Your task to perform on an android device: find snoozed emails in the gmail app Image 0: 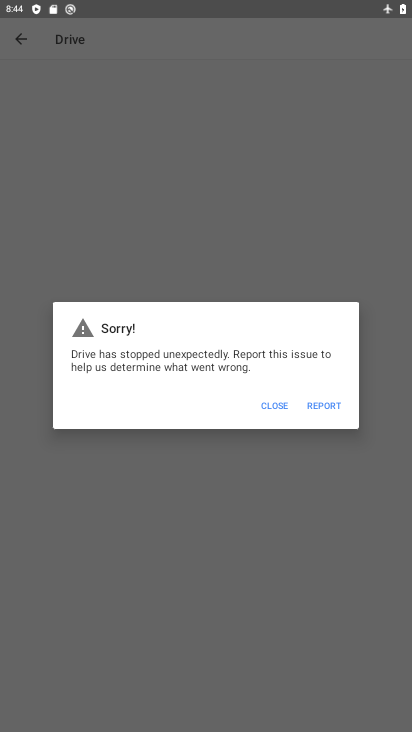
Step 0: press home button
Your task to perform on an android device: find snoozed emails in the gmail app Image 1: 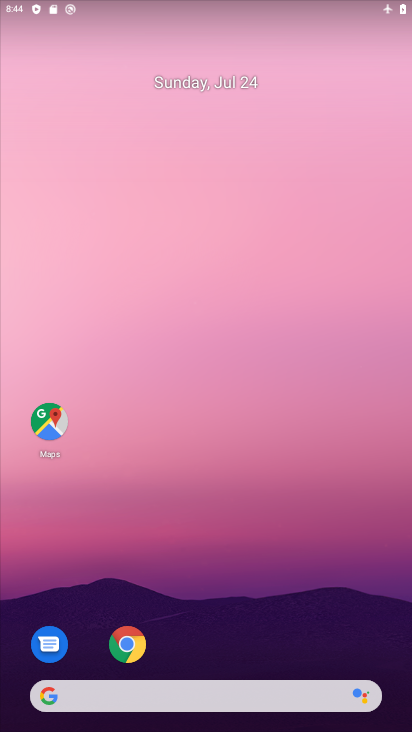
Step 1: drag from (268, 639) to (265, 71)
Your task to perform on an android device: find snoozed emails in the gmail app Image 2: 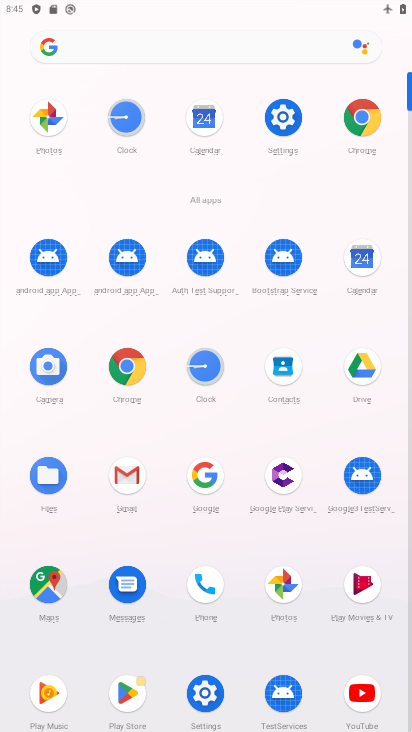
Step 2: click (125, 472)
Your task to perform on an android device: find snoozed emails in the gmail app Image 3: 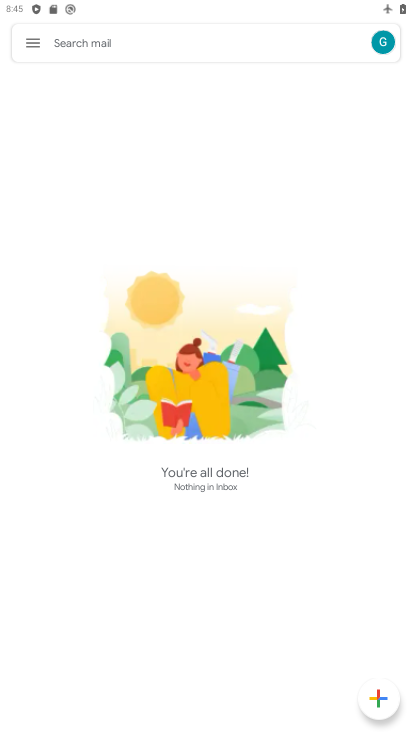
Step 3: click (27, 44)
Your task to perform on an android device: find snoozed emails in the gmail app Image 4: 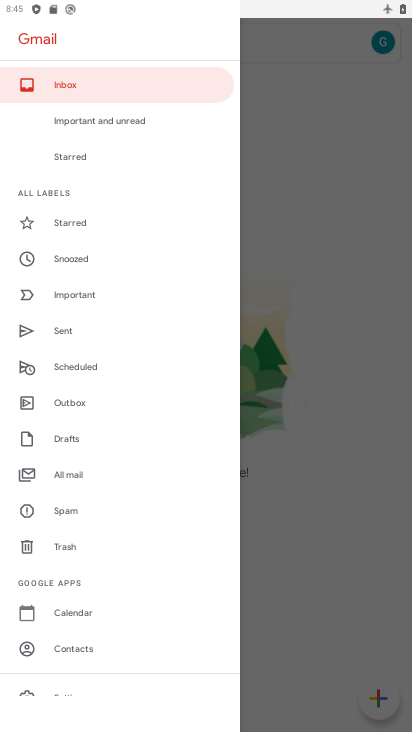
Step 4: drag from (96, 627) to (160, 341)
Your task to perform on an android device: find snoozed emails in the gmail app Image 5: 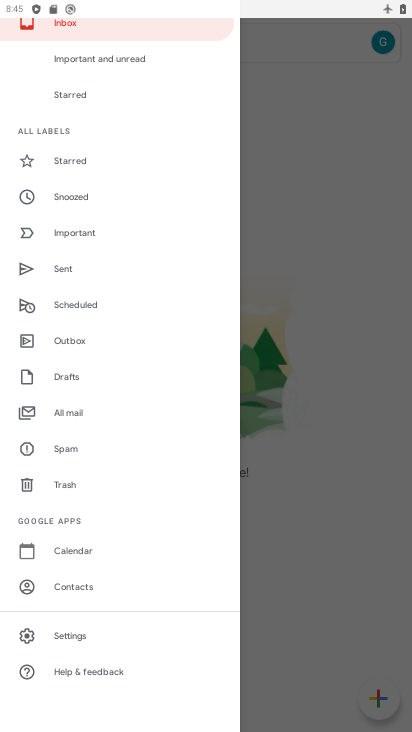
Step 5: click (64, 200)
Your task to perform on an android device: find snoozed emails in the gmail app Image 6: 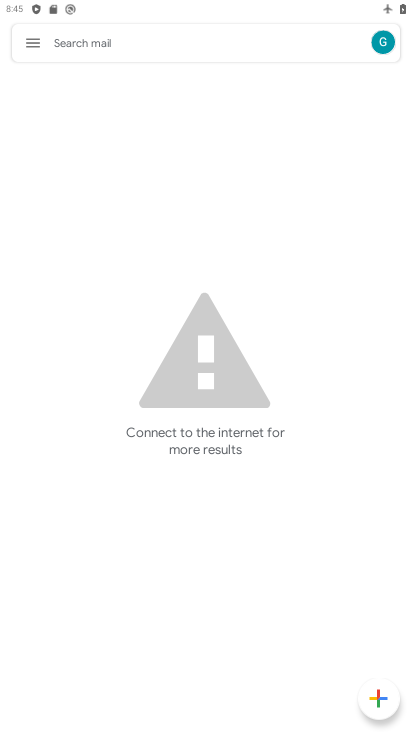
Step 6: task complete